Your task to perform on an android device: Search for pizza restaurants on Maps Image 0: 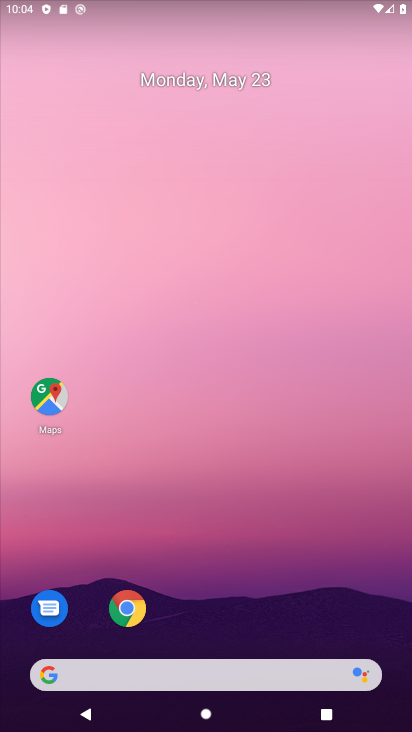
Step 0: click (47, 390)
Your task to perform on an android device: Search for pizza restaurants on Maps Image 1: 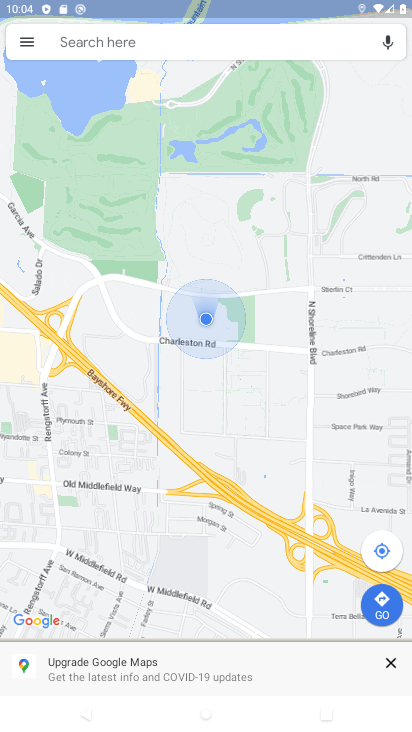
Step 1: click (203, 29)
Your task to perform on an android device: Search for pizza restaurants on Maps Image 2: 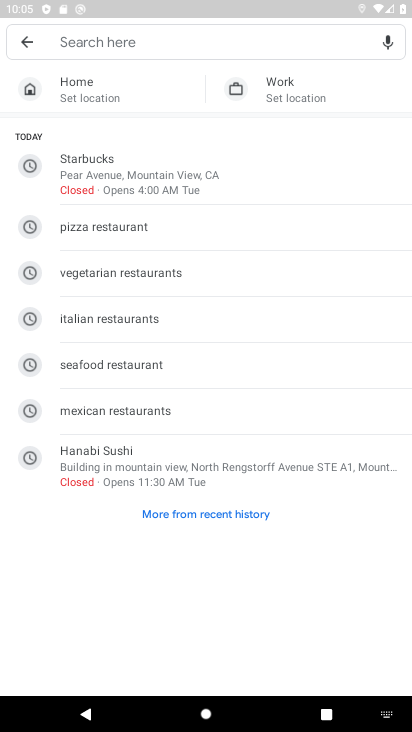
Step 2: type "Pizza restaurants"
Your task to perform on an android device: Search for pizza restaurants on Maps Image 3: 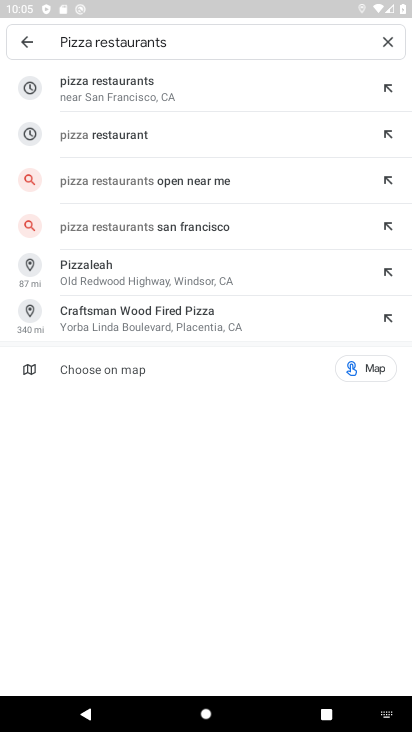
Step 3: click (200, 82)
Your task to perform on an android device: Search for pizza restaurants on Maps Image 4: 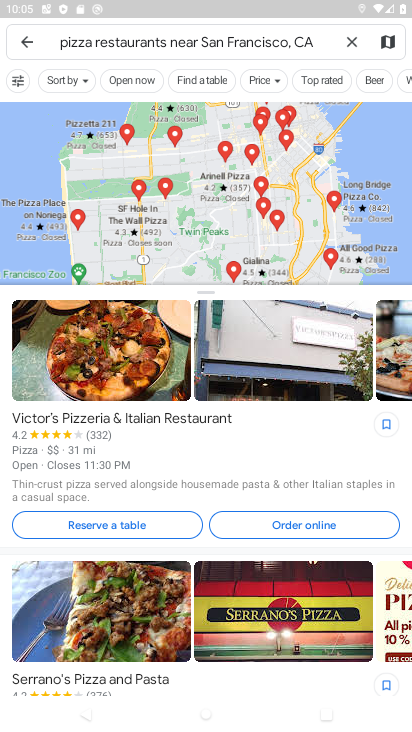
Step 4: task complete